Your task to perform on an android device: Go to Amazon Image 0: 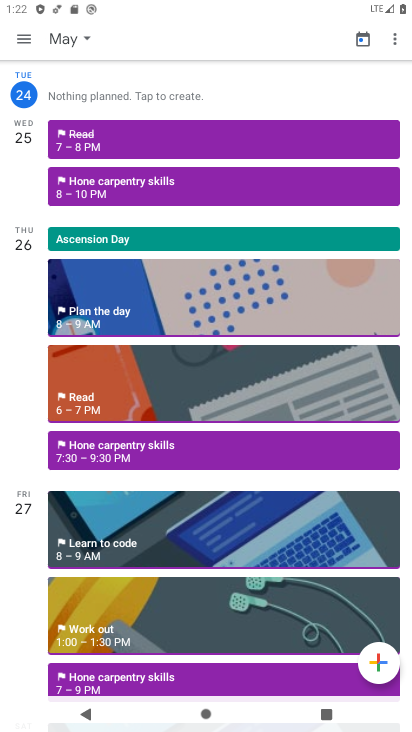
Step 0: press home button
Your task to perform on an android device: Go to Amazon Image 1: 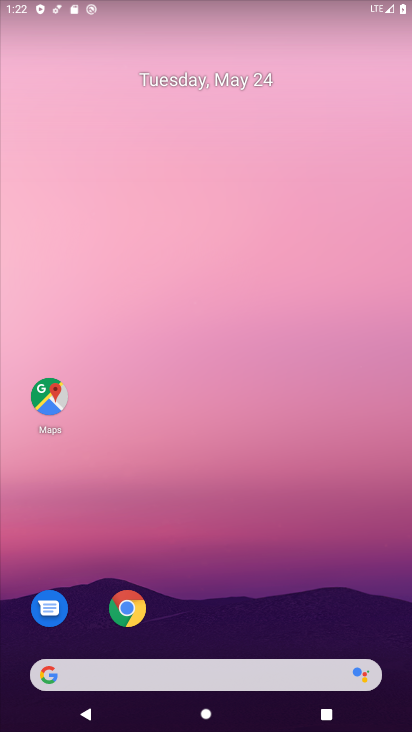
Step 1: click (144, 618)
Your task to perform on an android device: Go to Amazon Image 2: 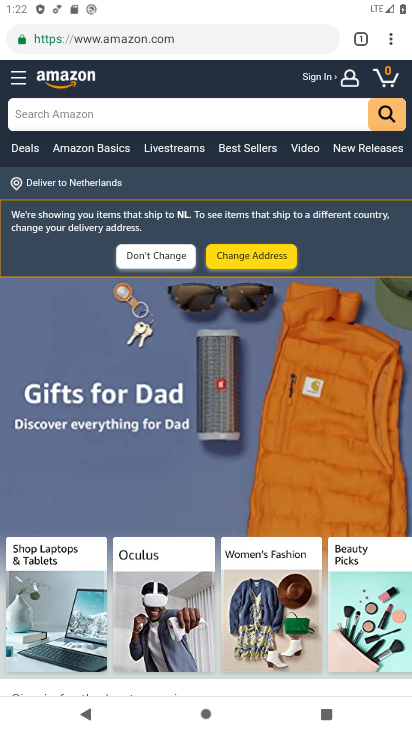
Step 2: task complete